Your task to perform on an android device: Open Wikipedia Image 0: 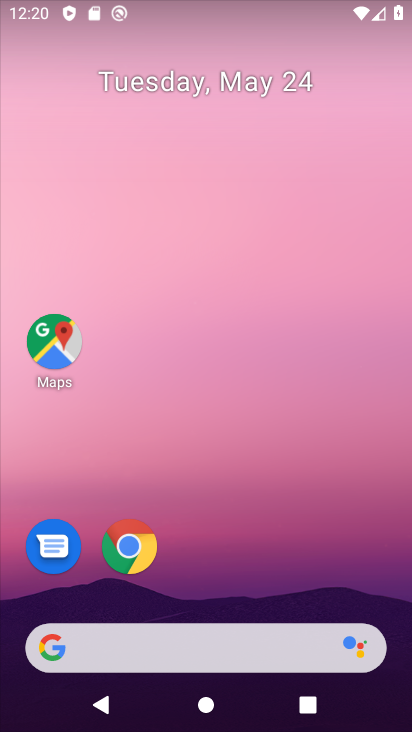
Step 0: drag from (223, 553) to (241, 12)
Your task to perform on an android device: Open Wikipedia Image 1: 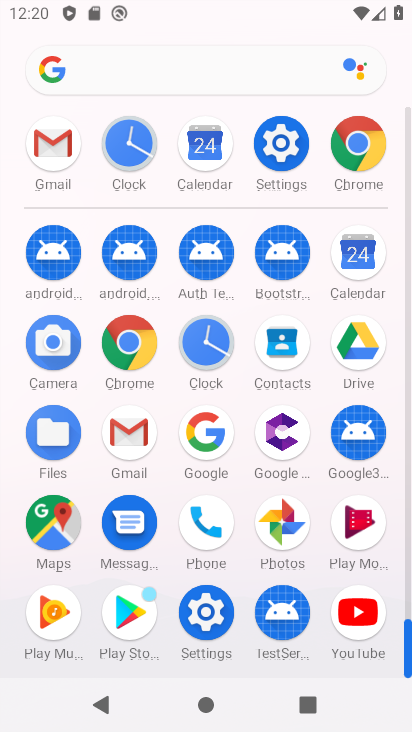
Step 1: click (113, 340)
Your task to perform on an android device: Open Wikipedia Image 2: 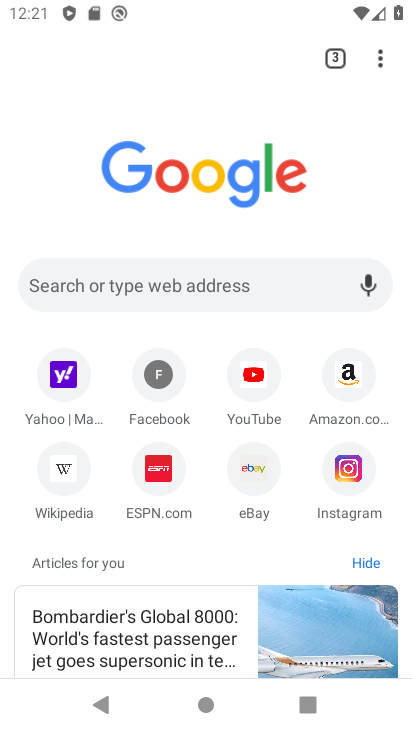
Step 2: click (58, 482)
Your task to perform on an android device: Open Wikipedia Image 3: 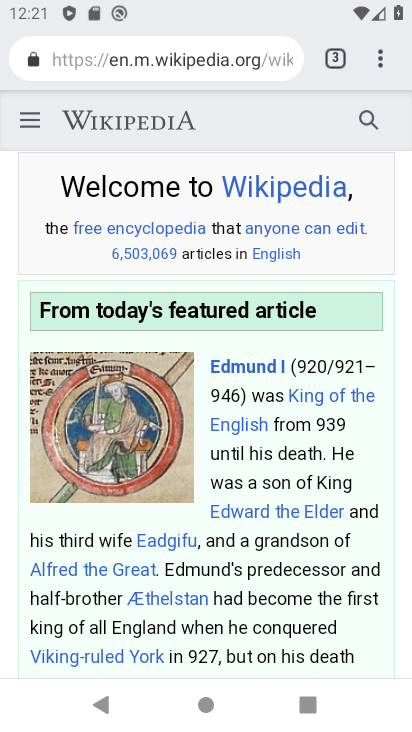
Step 3: task complete